Your task to perform on an android device: toggle sleep mode Image 0: 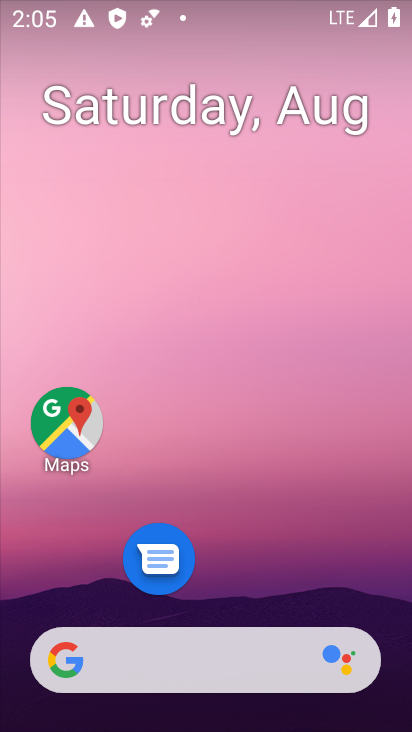
Step 0: drag from (254, 615) to (313, 43)
Your task to perform on an android device: toggle sleep mode Image 1: 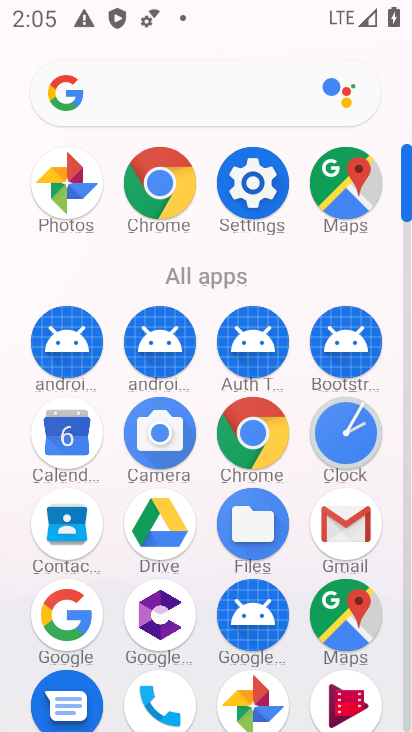
Step 1: click (231, 168)
Your task to perform on an android device: toggle sleep mode Image 2: 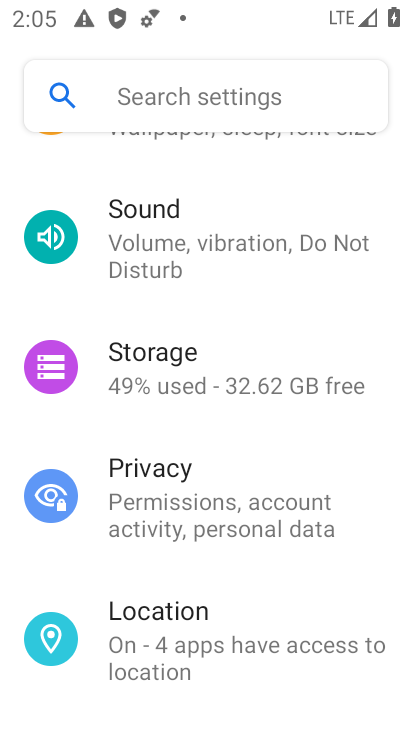
Step 2: drag from (199, 274) to (186, 465)
Your task to perform on an android device: toggle sleep mode Image 3: 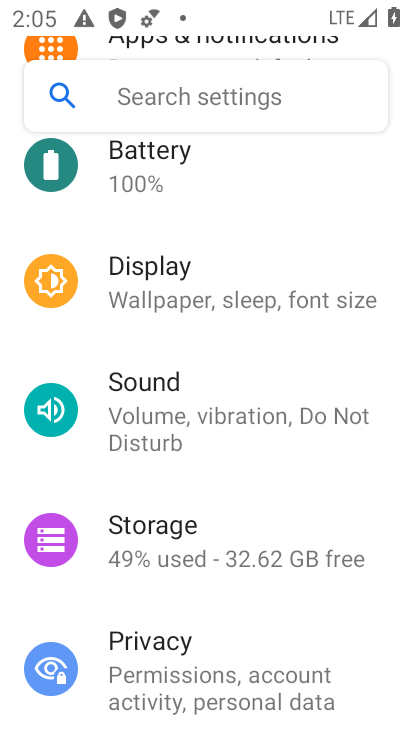
Step 3: click (142, 298)
Your task to perform on an android device: toggle sleep mode Image 4: 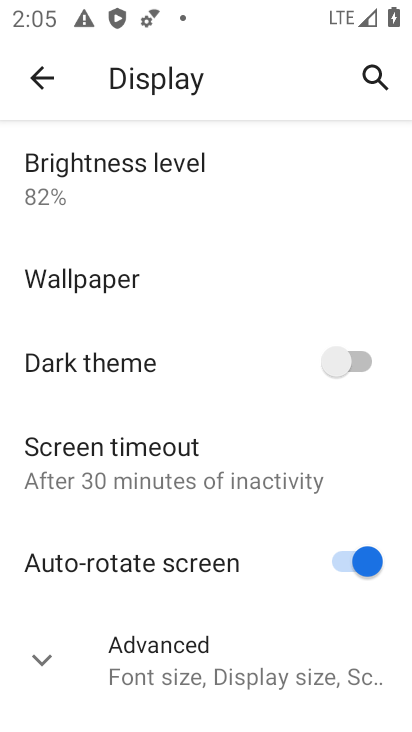
Step 4: click (201, 647)
Your task to perform on an android device: toggle sleep mode Image 5: 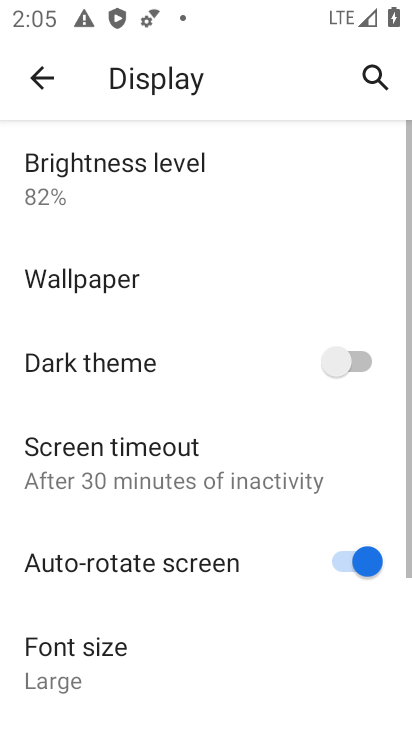
Step 5: task complete